Your task to perform on an android device: Is it going to rain today? Image 0: 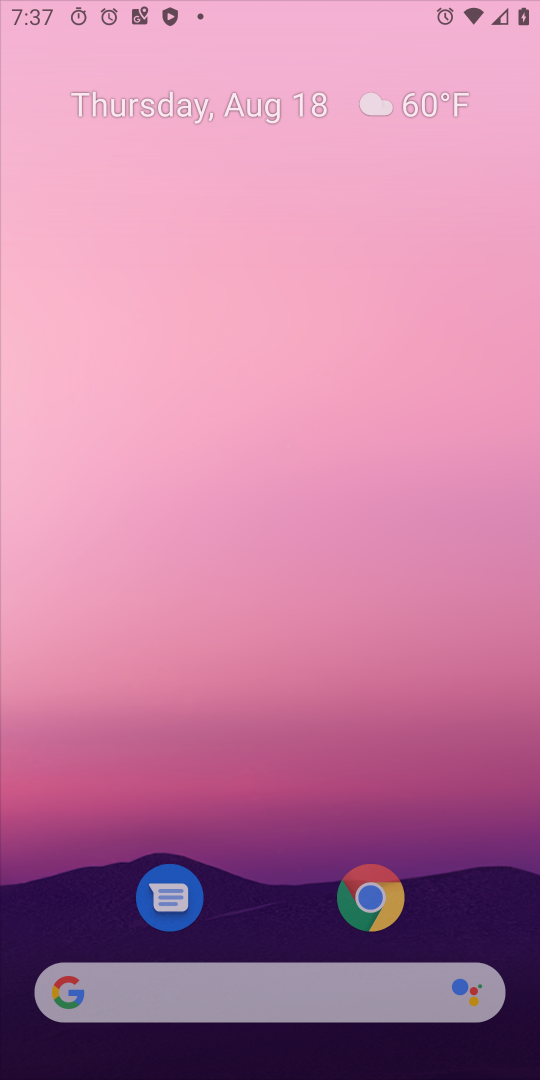
Step 0: press home button
Your task to perform on an android device: Is it going to rain today? Image 1: 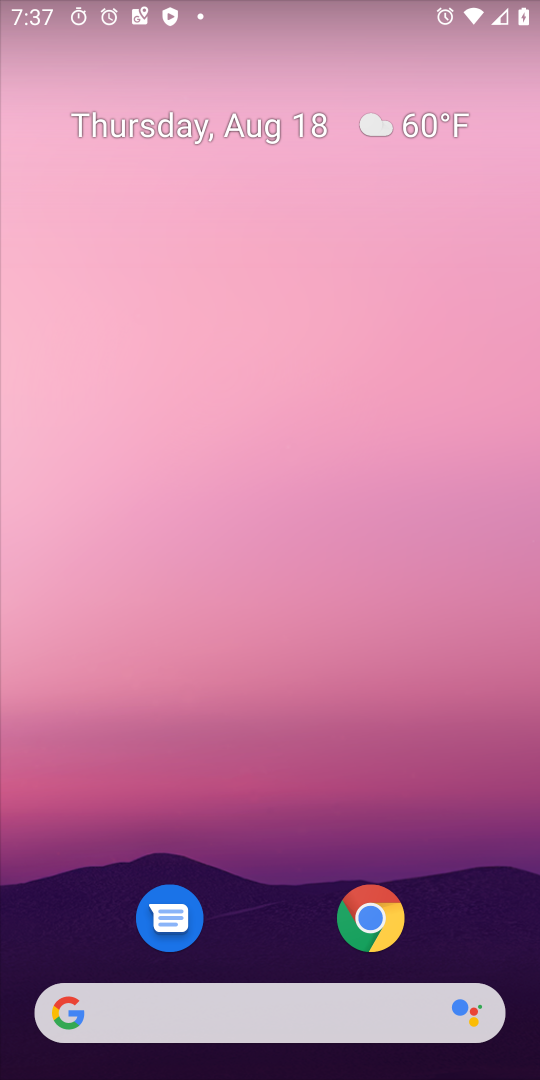
Step 1: press home button
Your task to perform on an android device: Is it going to rain today? Image 2: 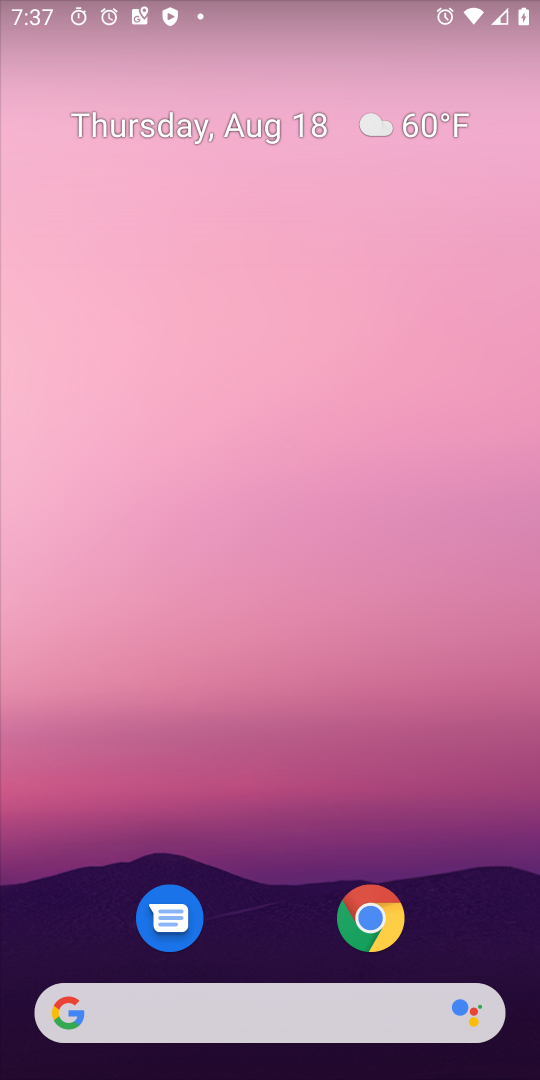
Step 2: click (58, 1028)
Your task to perform on an android device: Is it going to rain today? Image 3: 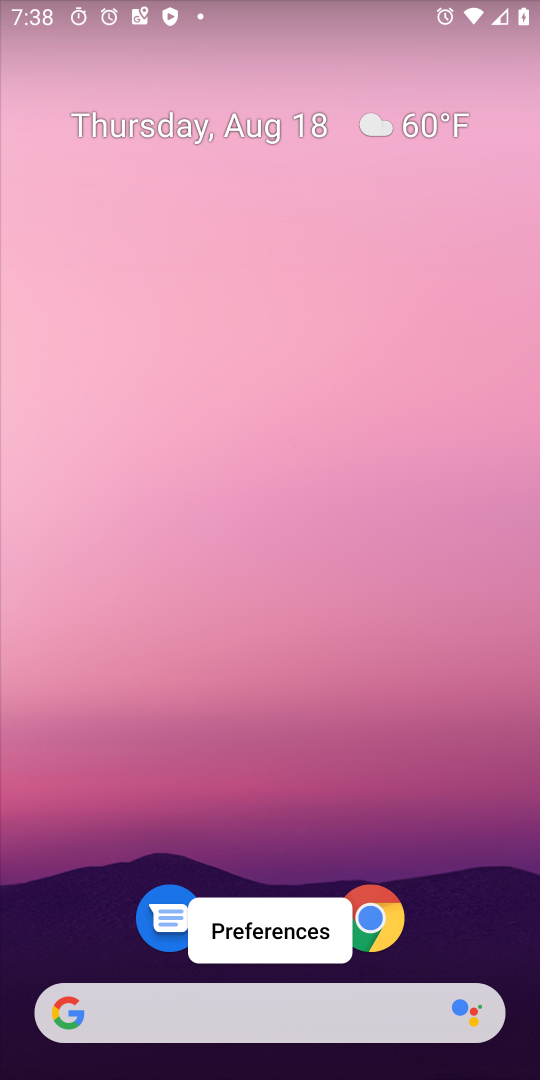
Step 3: click (63, 1020)
Your task to perform on an android device: Is it going to rain today? Image 4: 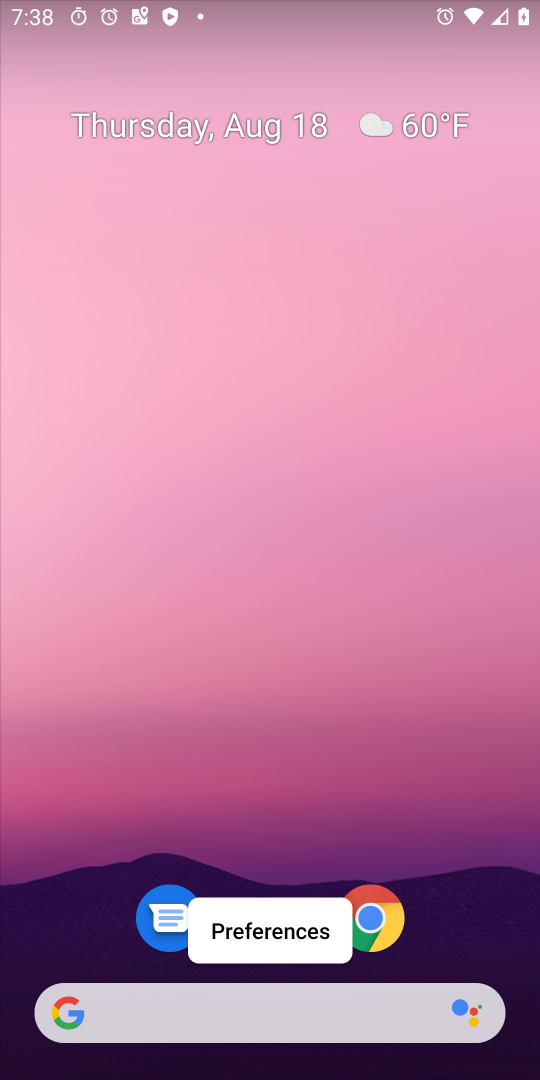
Step 4: click (63, 1020)
Your task to perform on an android device: Is it going to rain today? Image 5: 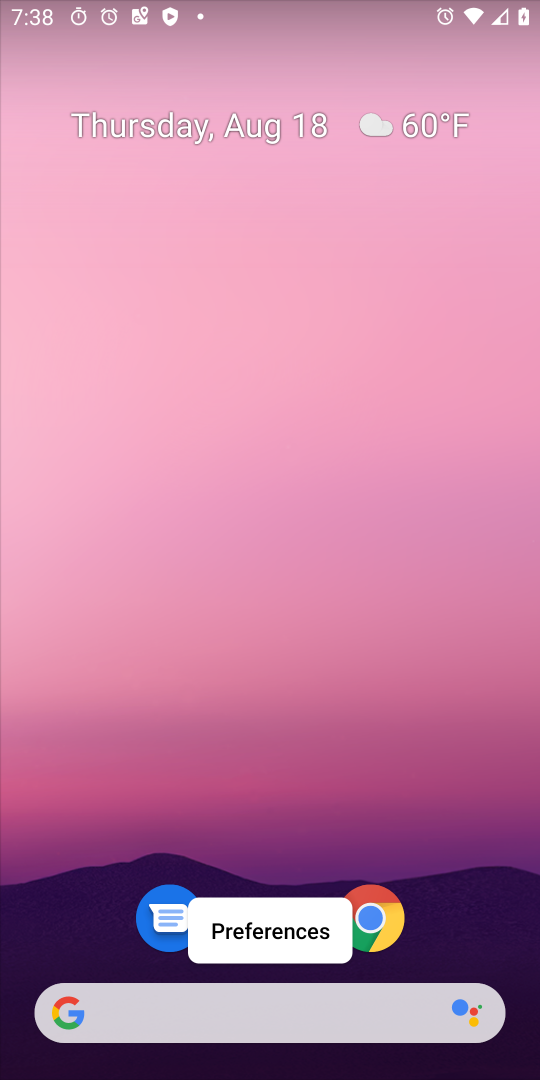
Step 5: click (58, 1013)
Your task to perform on an android device: Is it going to rain today? Image 6: 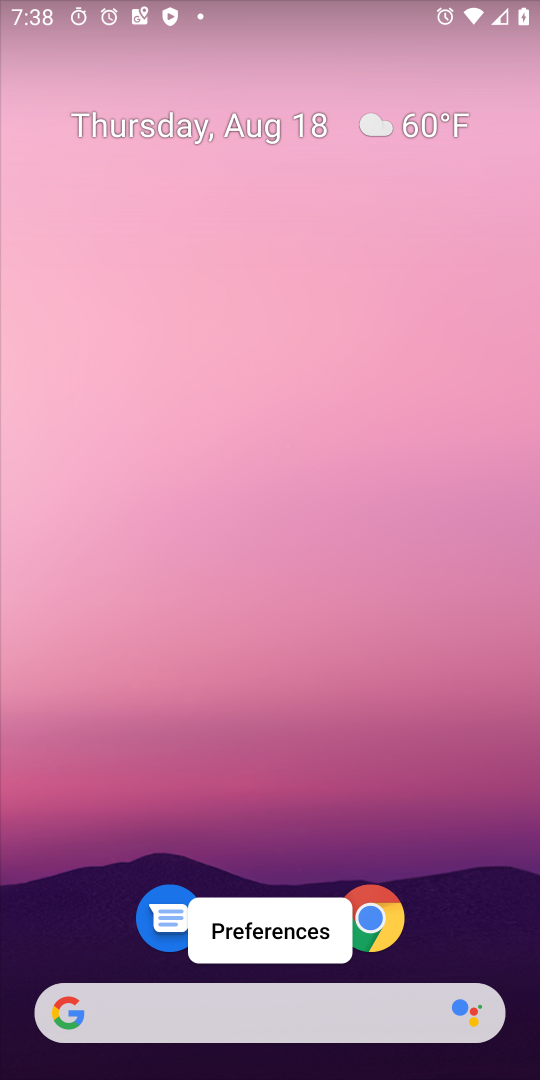
Step 6: click (58, 1013)
Your task to perform on an android device: Is it going to rain today? Image 7: 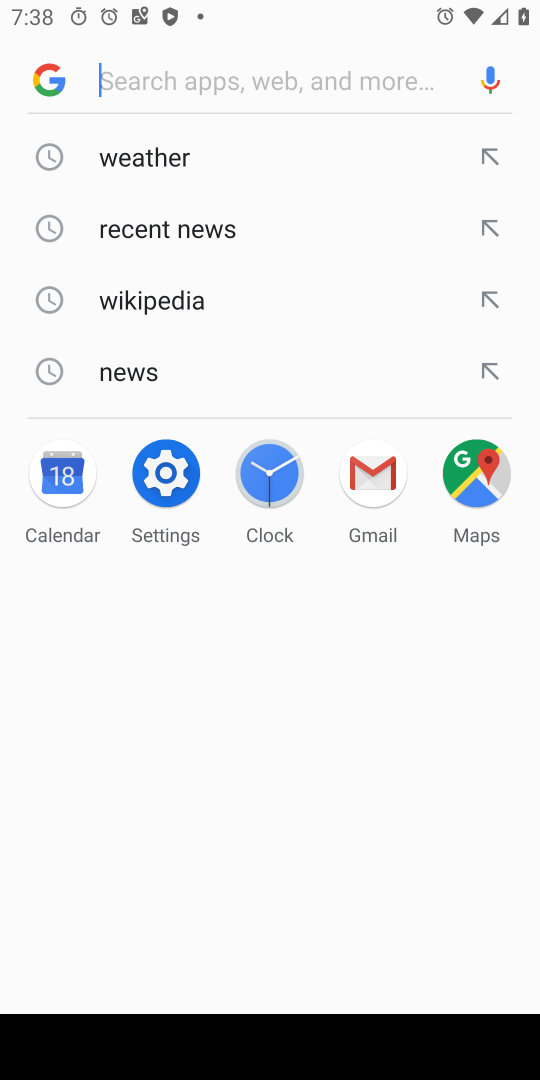
Step 7: type "rain today?"
Your task to perform on an android device: Is it going to rain today? Image 8: 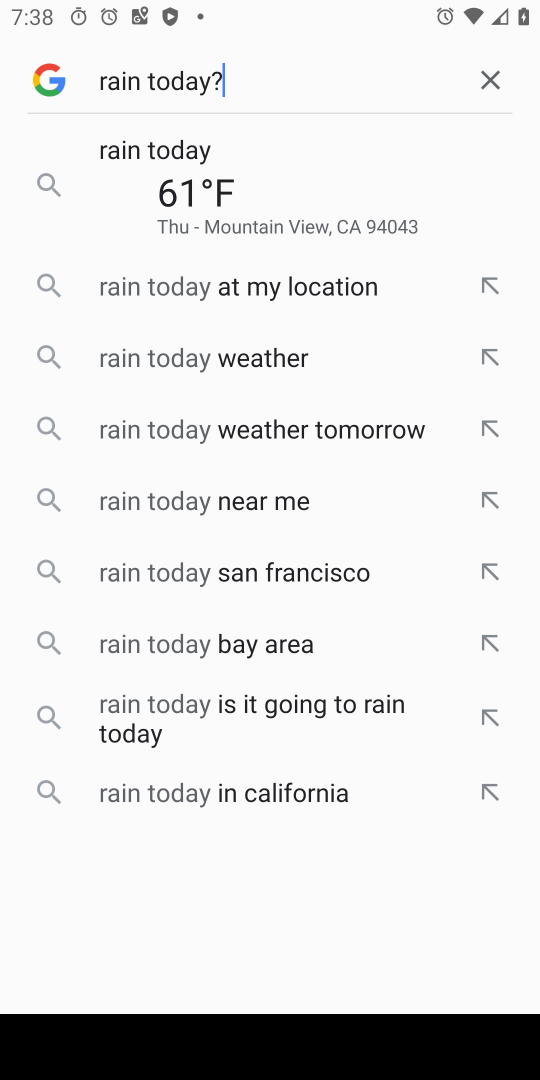
Step 8: press home button
Your task to perform on an android device: Is it going to rain today? Image 9: 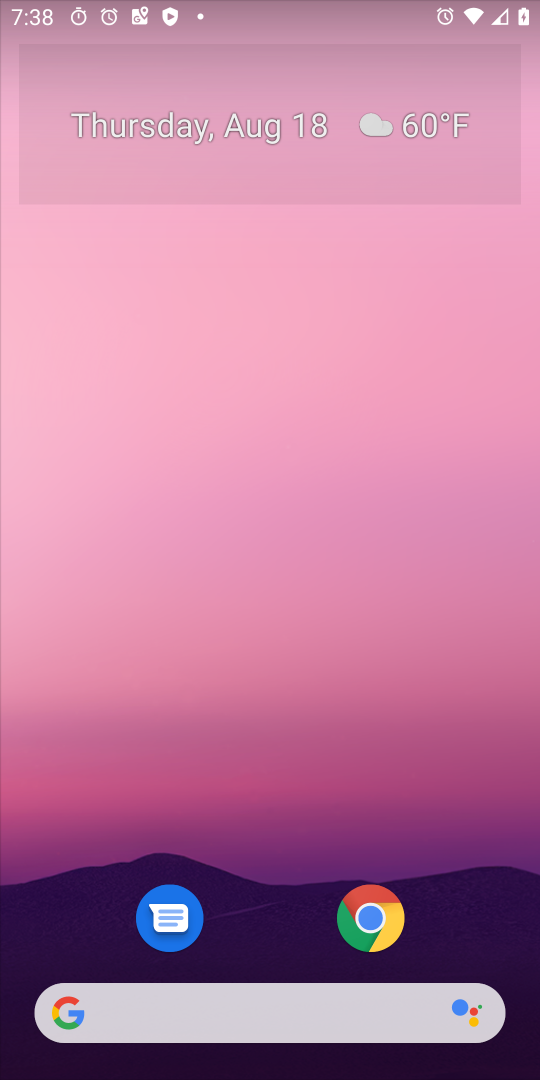
Step 9: click (56, 1031)
Your task to perform on an android device: Is it going to rain today? Image 10: 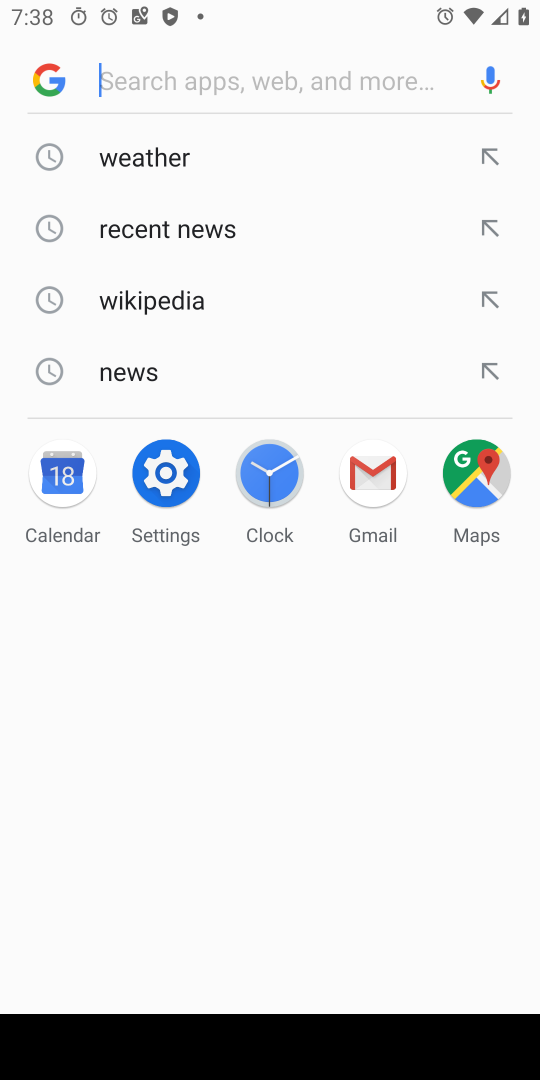
Step 10: type "rain today?"
Your task to perform on an android device: Is it going to rain today? Image 11: 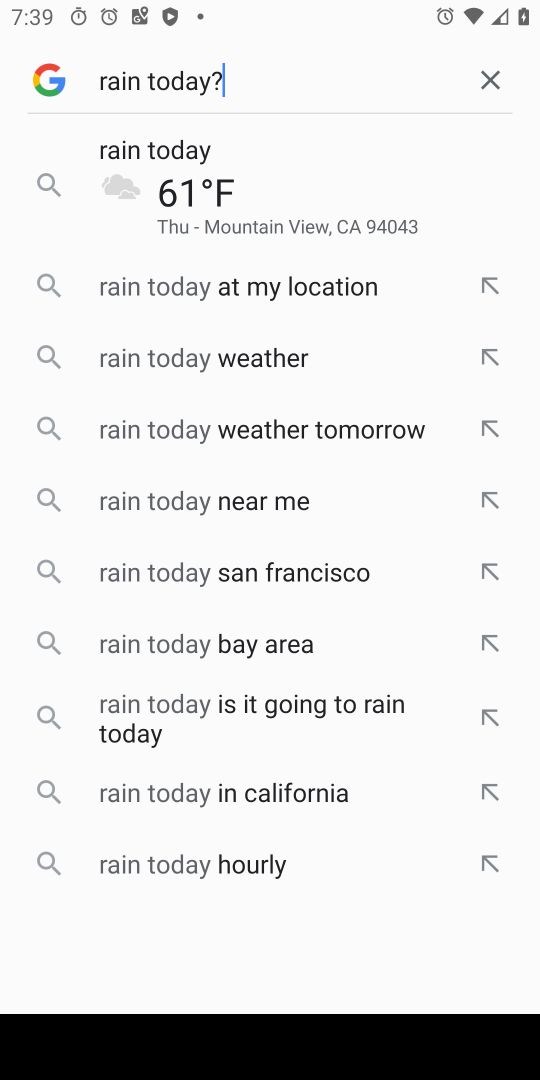
Step 11: press enter
Your task to perform on an android device: Is it going to rain today? Image 12: 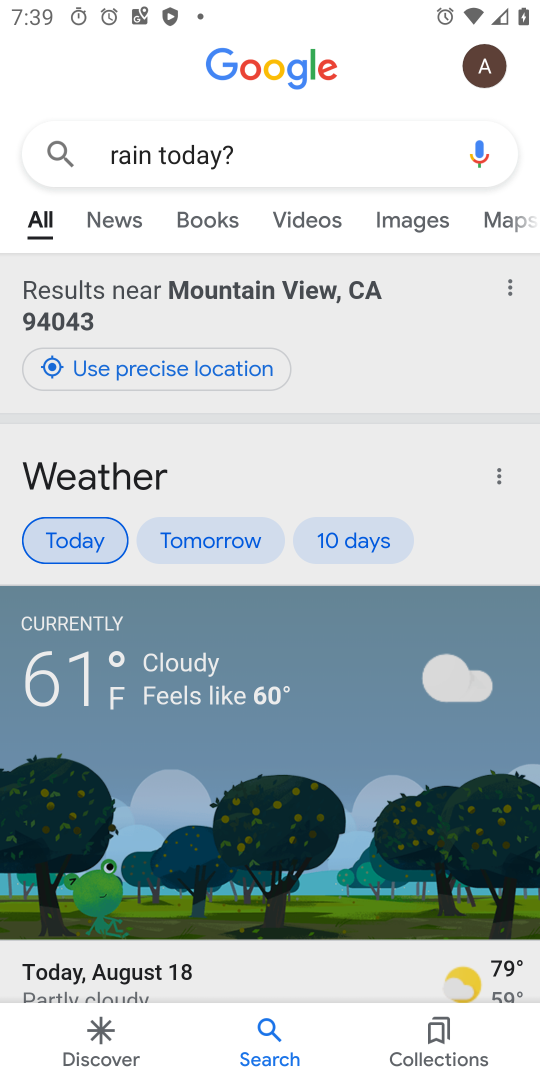
Step 12: task complete